Your task to perform on an android device: star an email in the gmail app Image 0: 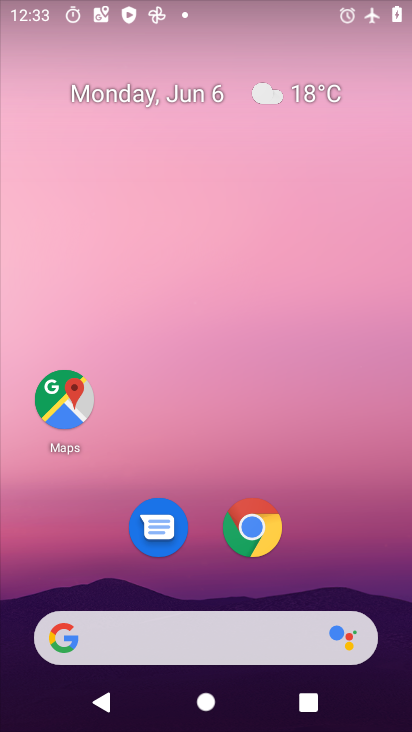
Step 0: drag from (323, 505) to (140, 4)
Your task to perform on an android device: star an email in the gmail app Image 1: 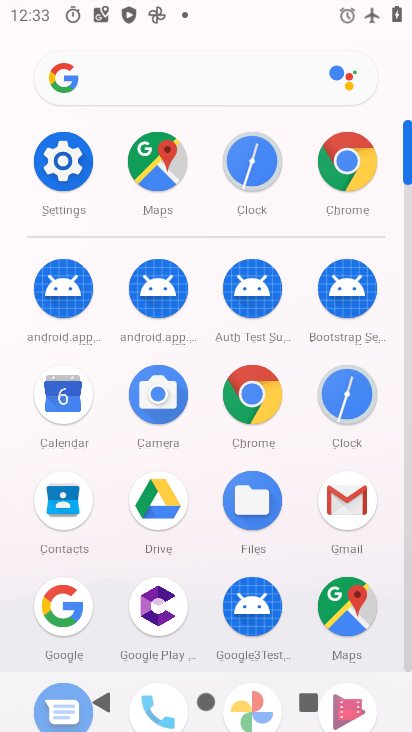
Step 1: click (368, 509)
Your task to perform on an android device: star an email in the gmail app Image 2: 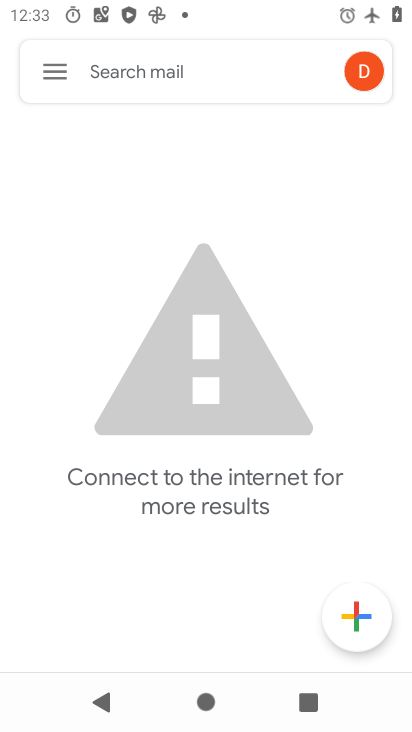
Step 2: drag from (160, 585) to (179, 87)
Your task to perform on an android device: star an email in the gmail app Image 3: 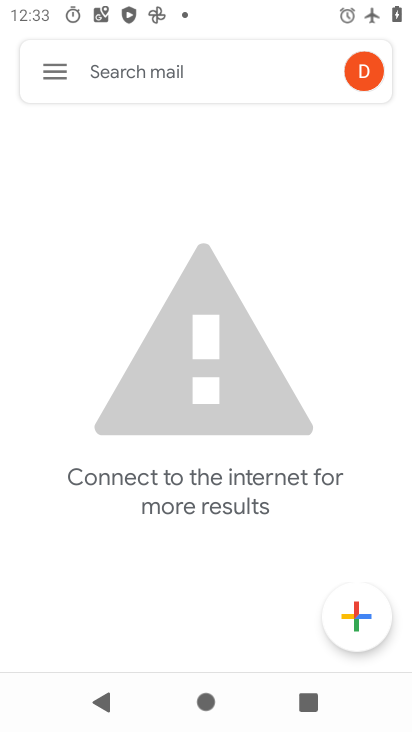
Step 3: click (61, 83)
Your task to perform on an android device: star an email in the gmail app Image 4: 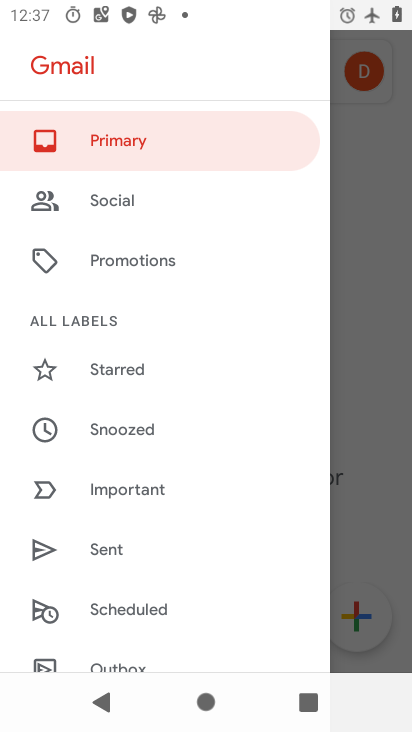
Step 4: task complete